Your task to perform on an android device: Open eBay Image 0: 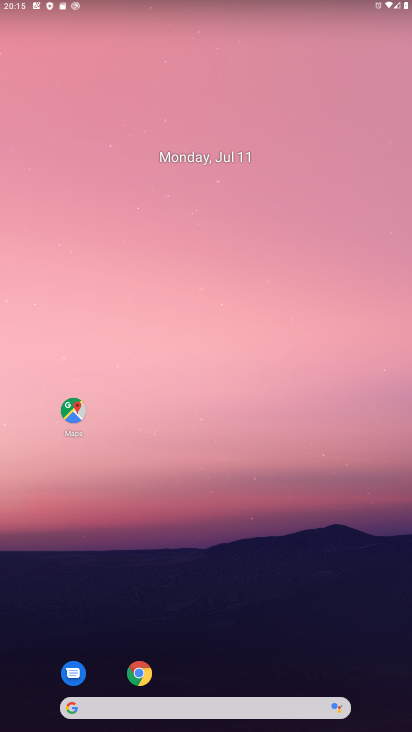
Step 0: click (139, 670)
Your task to perform on an android device: Open eBay Image 1: 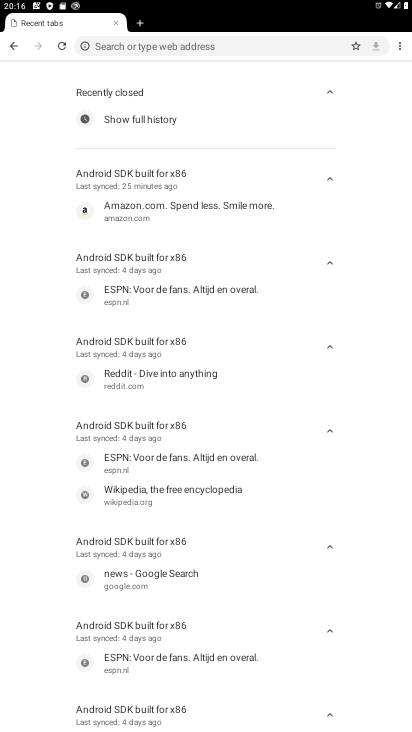
Step 1: click (142, 17)
Your task to perform on an android device: Open eBay Image 2: 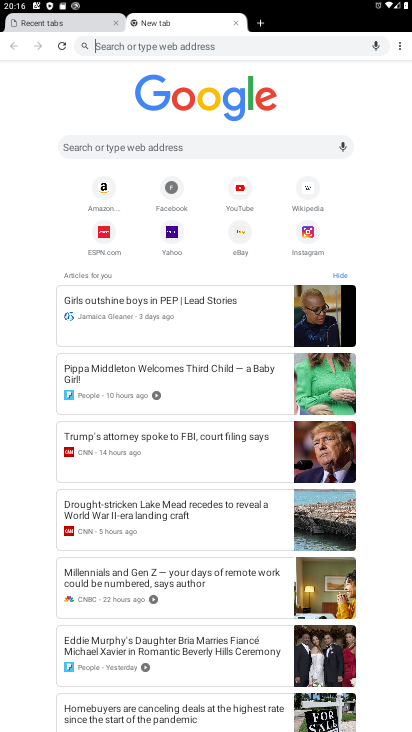
Step 2: click (240, 228)
Your task to perform on an android device: Open eBay Image 3: 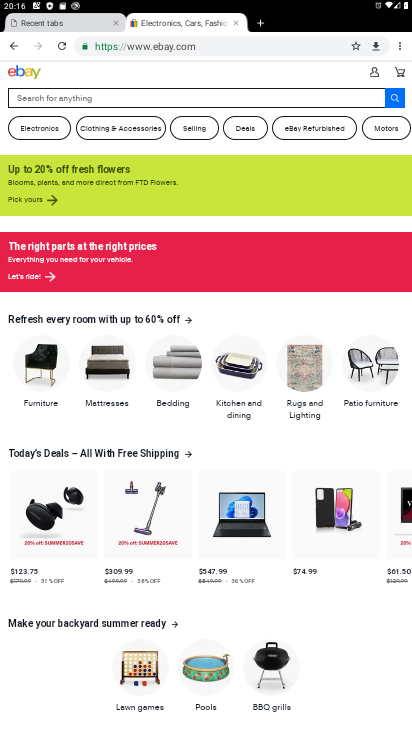
Step 3: task complete